Your task to perform on an android device: Open my contact list Image 0: 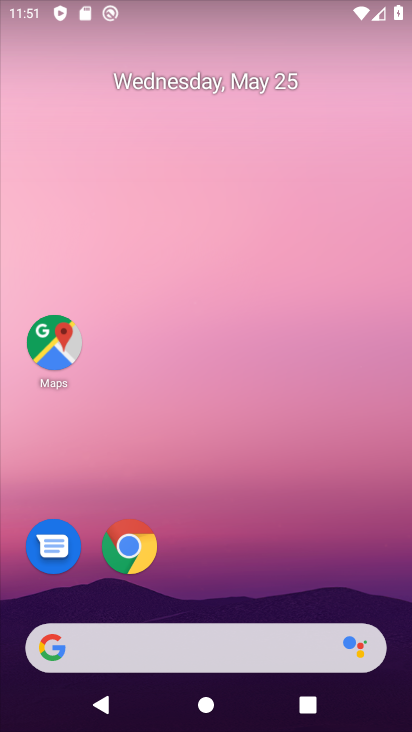
Step 0: drag from (207, 488) to (365, 9)
Your task to perform on an android device: Open my contact list Image 1: 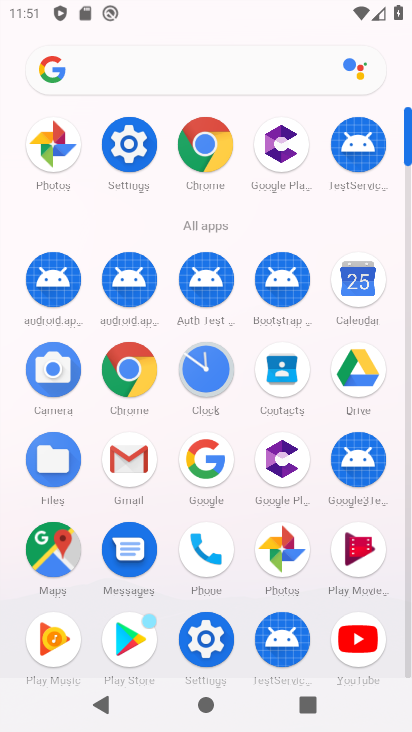
Step 1: click (263, 373)
Your task to perform on an android device: Open my contact list Image 2: 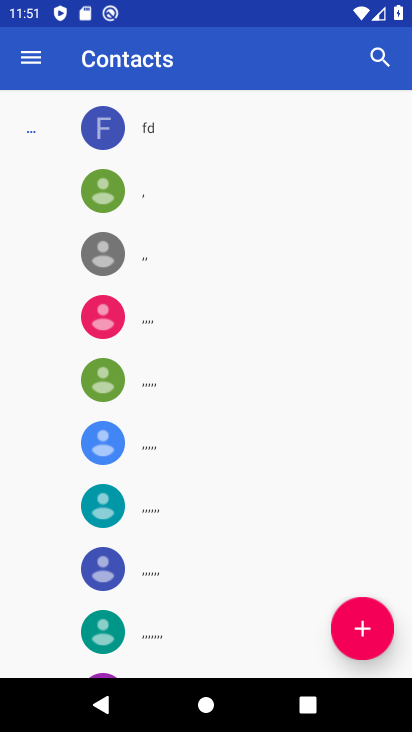
Step 2: task complete